Your task to perform on an android device: Open Google Maps and go to "Timeline" Image 0: 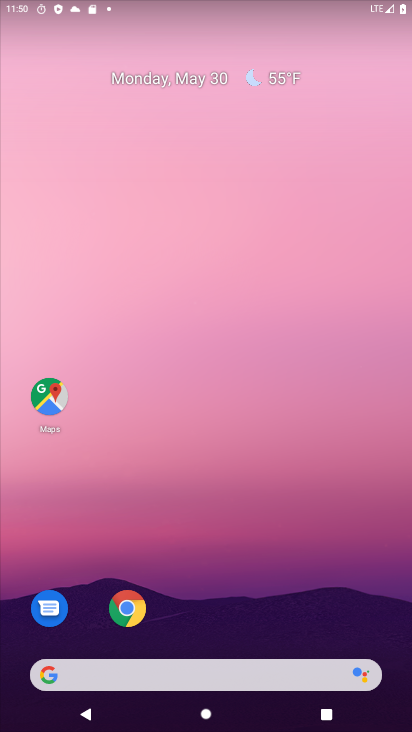
Step 0: click (48, 405)
Your task to perform on an android device: Open Google Maps and go to "Timeline" Image 1: 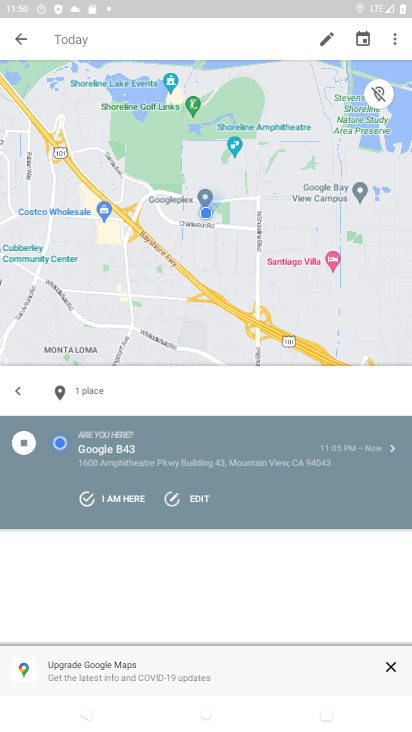
Step 1: click (25, 37)
Your task to perform on an android device: Open Google Maps and go to "Timeline" Image 2: 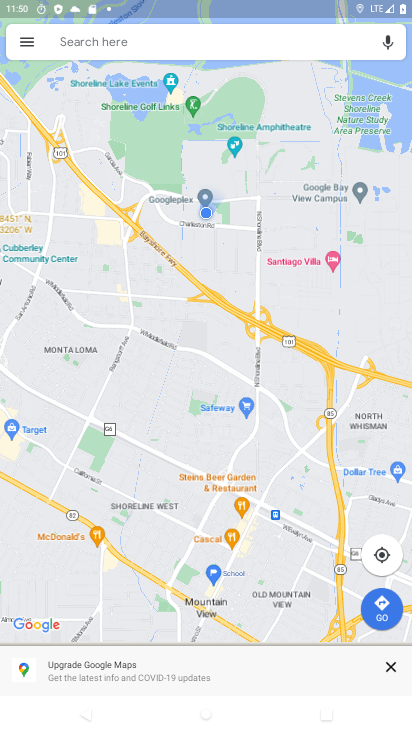
Step 2: click (24, 40)
Your task to perform on an android device: Open Google Maps and go to "Timeline" Image 3: 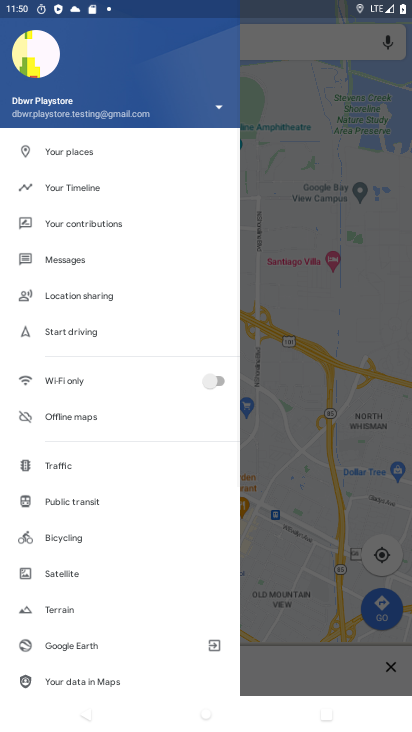
Step 3: click (54, 185)
Your task to perform on an android device: Open Google Maps and go to "Timeline" Image 4: 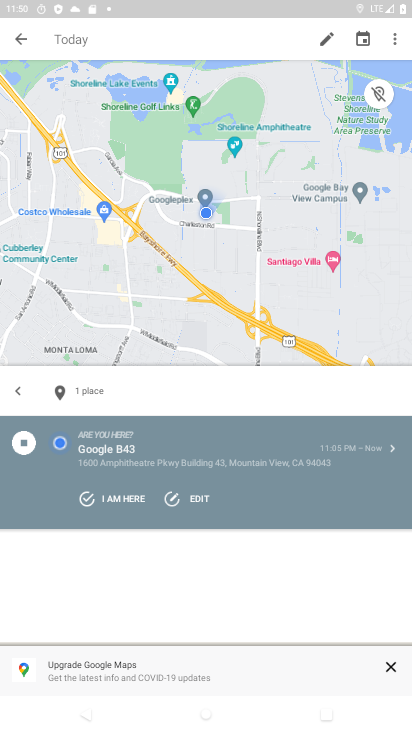
Step 4: task complete